Your task to perform on an android device: Open settings on Google Maps Image 0: 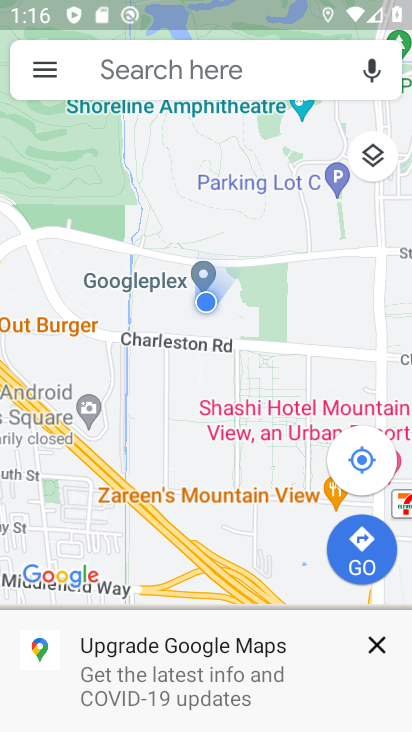
Step 0: click (40, 72)
Your task to perform on an android device: Open settings on Google Maps Image 1: 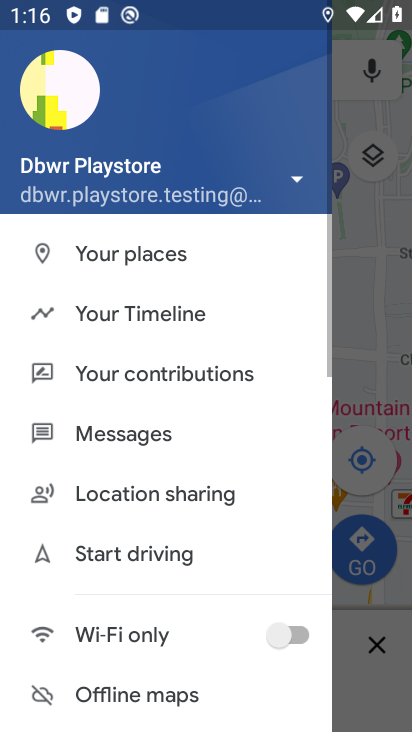
Step 1: drag from (156, 662) to (204, 301)
Your task to perform on an android device: Open settings on Google Maps Image 2: 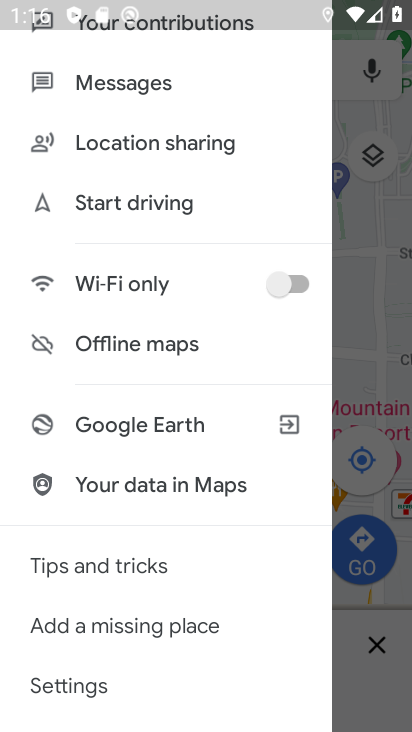
Step 2: click (53, 686)
Your task to perform on an android device: Open settings on Google Maps Image 3: 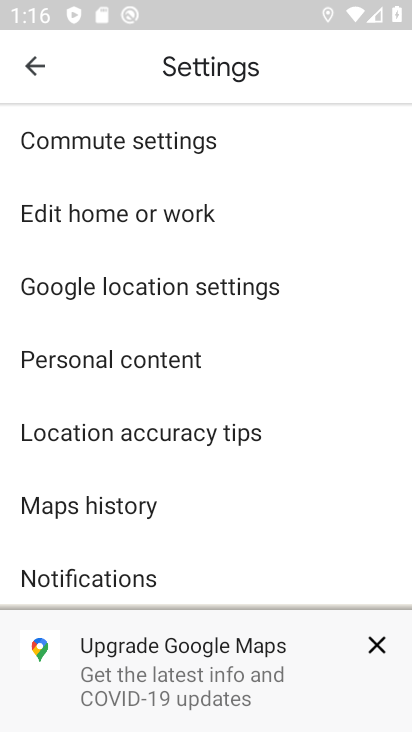
Step 3: task complete